Your task to perform on an android device: open a bookmark in the chrome app Image 0: 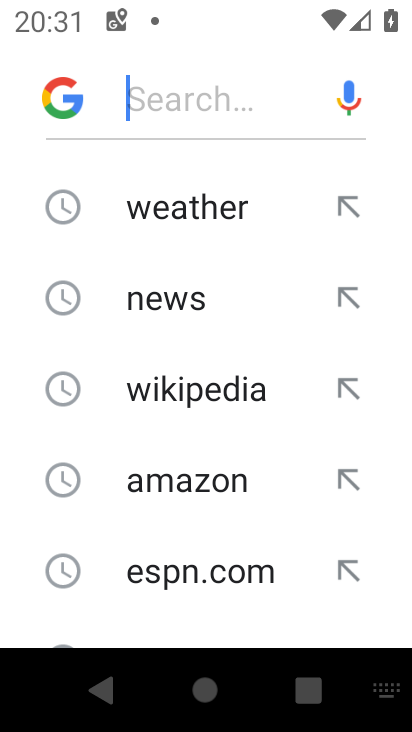
Step 0: press back button
Your task to perform on an android device: open a bookmark in the chrome app Image 1: 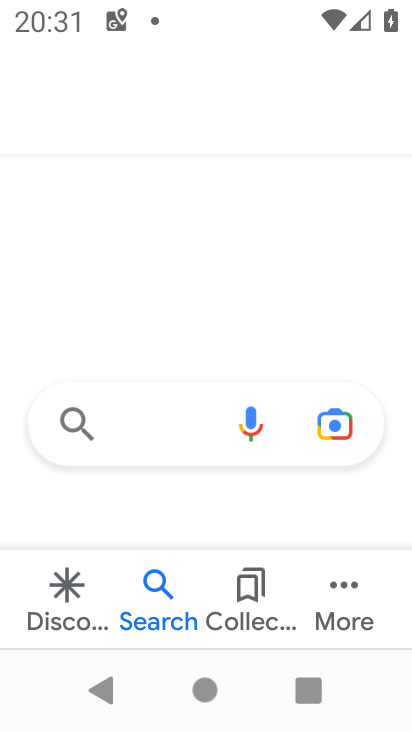
Step 1: press back button
Your task to perform on an android device: open a bookmark in the chrome app Image 2: 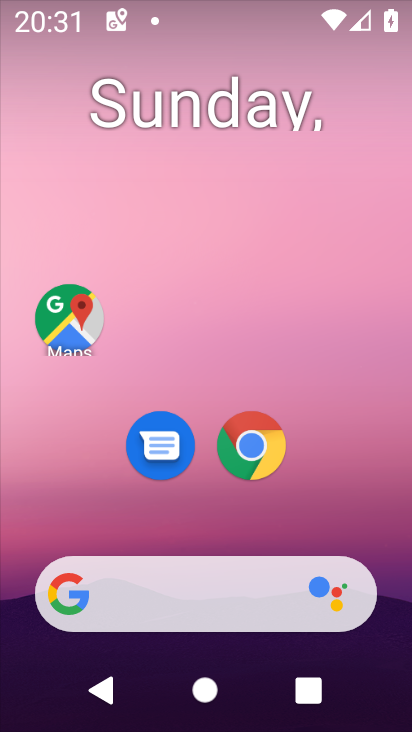
Step 2: click (271, 444)
Your task to perform on an android device: open a bookmark in the chrome app Image 3: 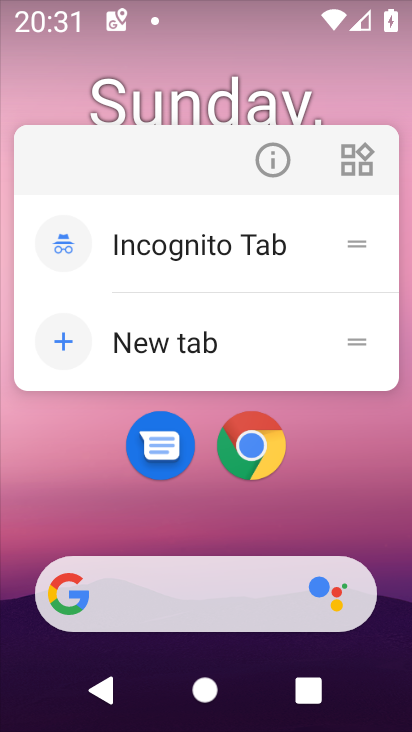
Step 3: click (251, 445)
Your task to perform on an android device: open a bookmark in the chrome app Image 4: 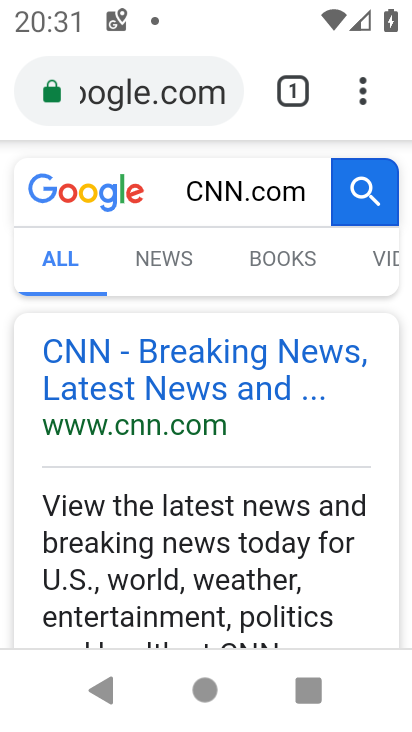
Step 4: click (356, 90)
Your task to perform on an android device: open a bookmark in the chrome app Image 5: 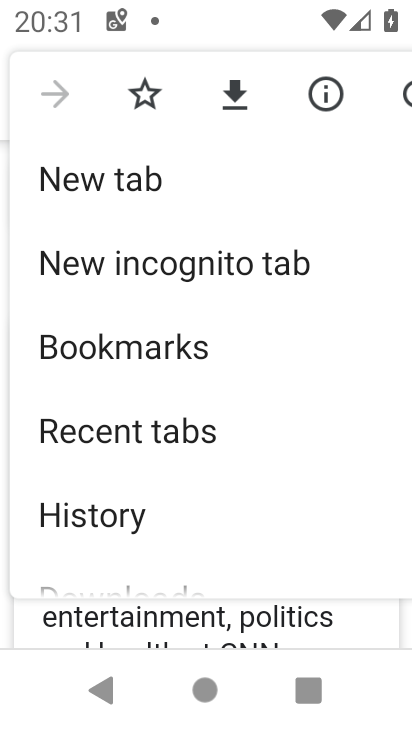
Step 5: click (108, 344)
Your task to perform on an android device: open a bookmark in the chrome app Image 6: 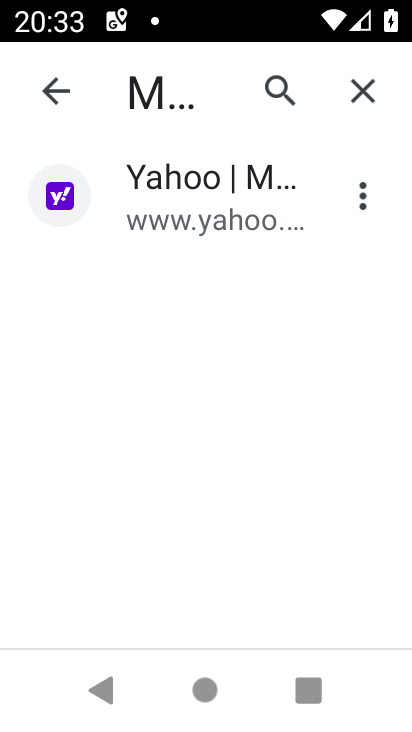
Step 6: task complete